Your task to perform on an android device: Search for seafood restaurants on Google Maps Image 0: 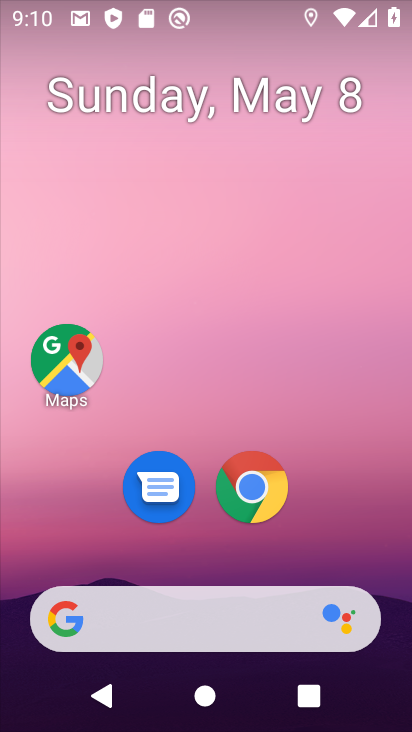
Step 0: drag from (381, 563) to (306, 59)
Your task to perform on an android device: Search for seafood restaurants on Google Maps Image 1: 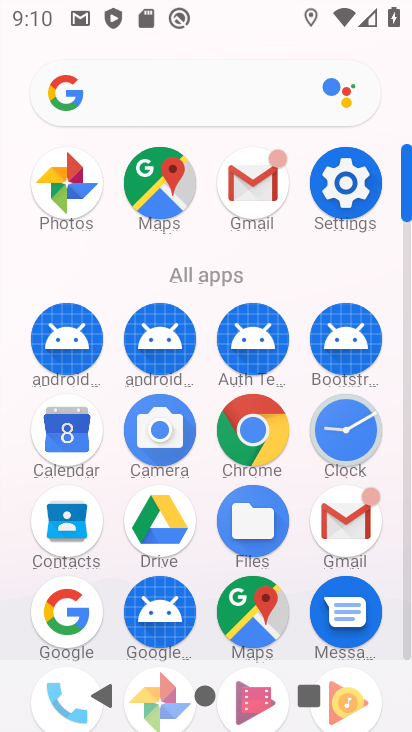
Step 1: click (254, 617)
Your task to perform on an android device: Search for seafood restaurants on Google Maps Image 2: 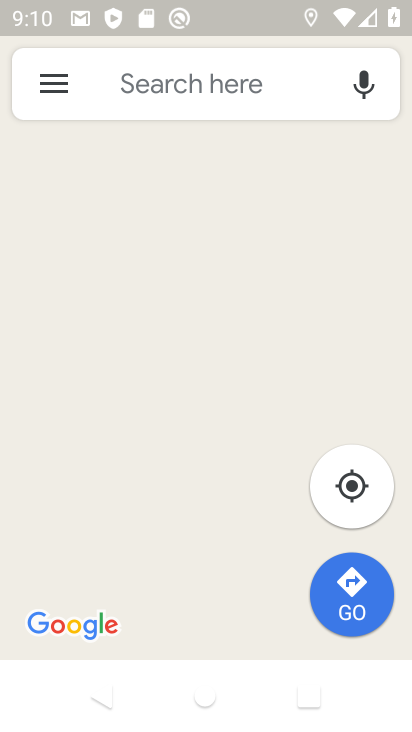
Step 2: click (152, 101)
Your task to perform on an android device: Search for seafood restaurants on Google Maps Image 3: 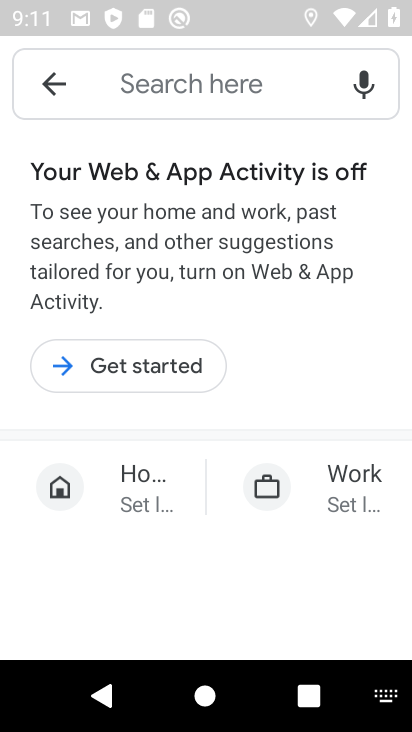
Step 3: click (117, 364)
Your task to perform on an android device: Search for seafood restaurants on Google Maps Image 4: 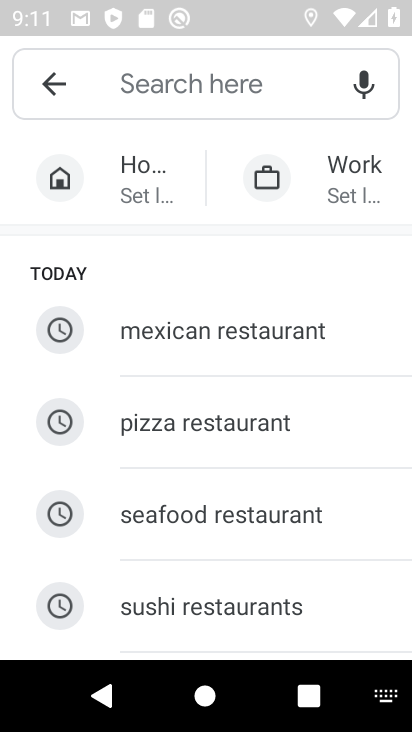
Step 4: click (183, 520)
Your task to perform on an android device: Search for seafood restaurants on Google Maps Image 5: 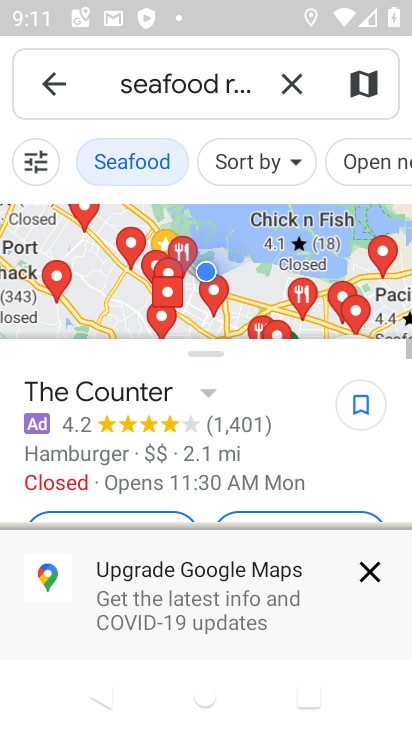
Step 5: task complete